Your task to perform on an android device: find snoozed emails in the gmail app Image 0: 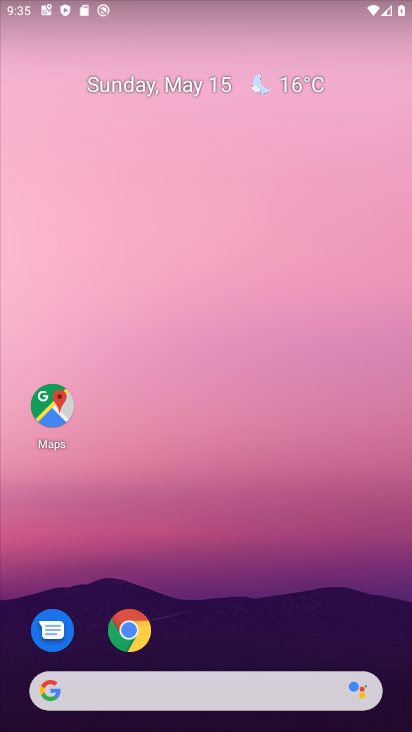
Step 0: drag from (232, 644) to (239, 283)
Your task to perform on an android device: find snoozed emails in the gmail app Image 1: 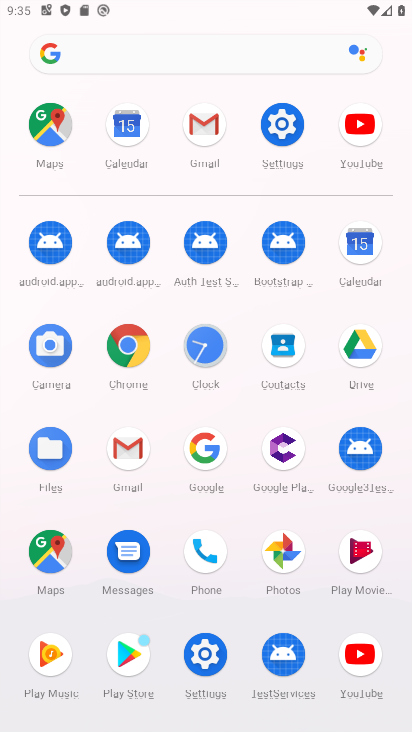
Step 1: click (143, 444)
Your task to perform on an android device: find snoozed emails in the gmail app Image 2: 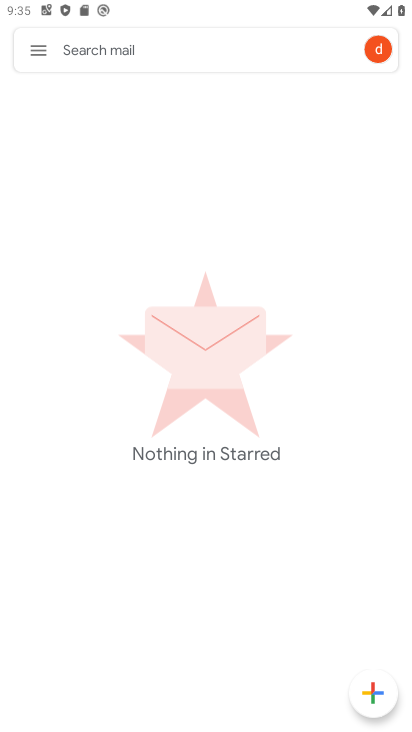
Step 2: click (42, 58)
Your task to perform on an android device: find snoozed emails in the gmail app Image 3: 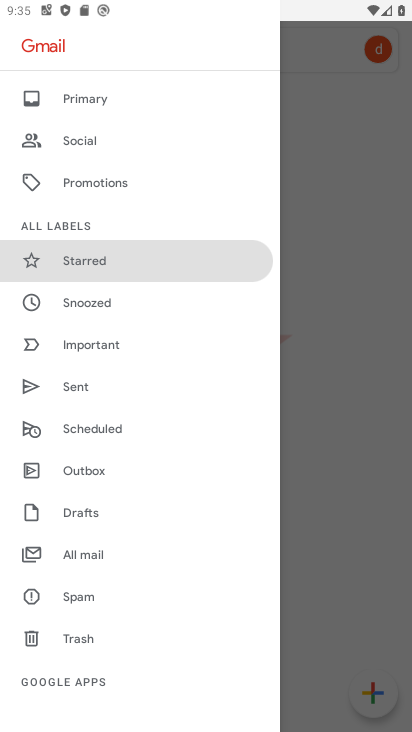
Step 3: click (128, 307)
Your task to perform on an android device: find snoozed emails in the gmail app Image 4: 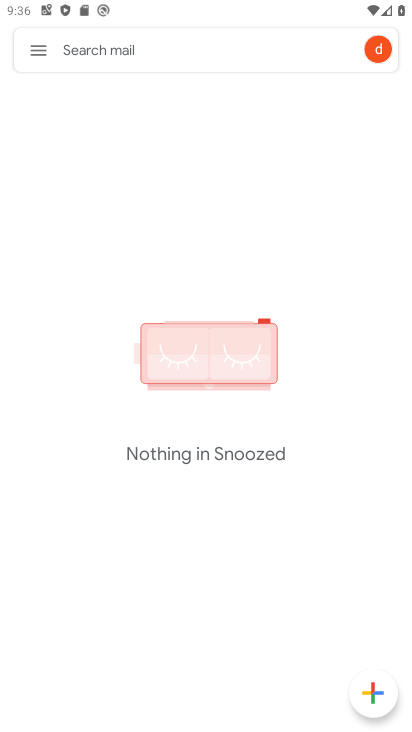
Step 4: task complete